Your task to perform on an android device: open wifi settings Image 0: 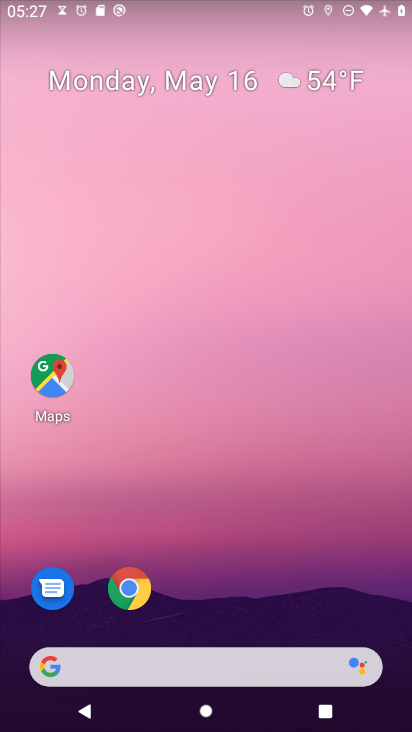
Step 0: drag from (282, 561) to (259, 92)
Your task to perform on an android device: open wifi settings Image 1: 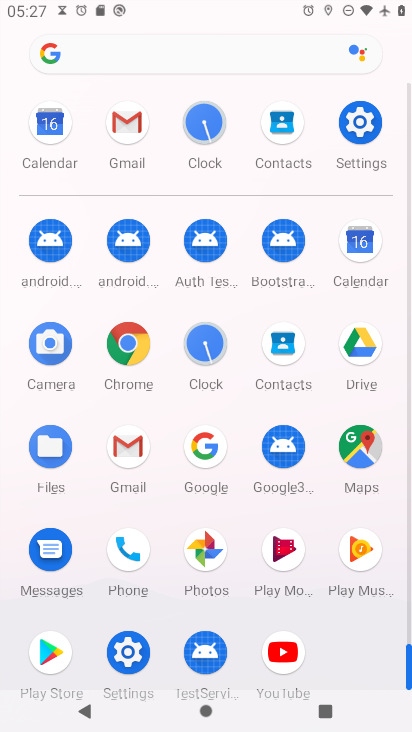
Step 1: drag from (10, 461) to (24, 177)
Your task to perform on an android device: open wifi settings Image 2: 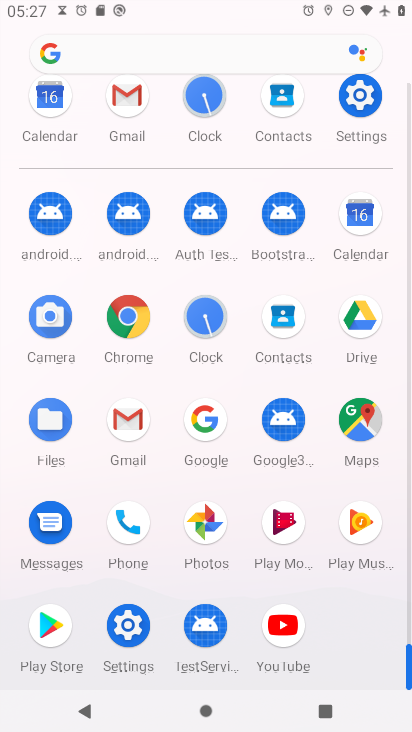
Step 2: click (360, 91)
Your task to perform on an android device: open wifi settings Image 3: 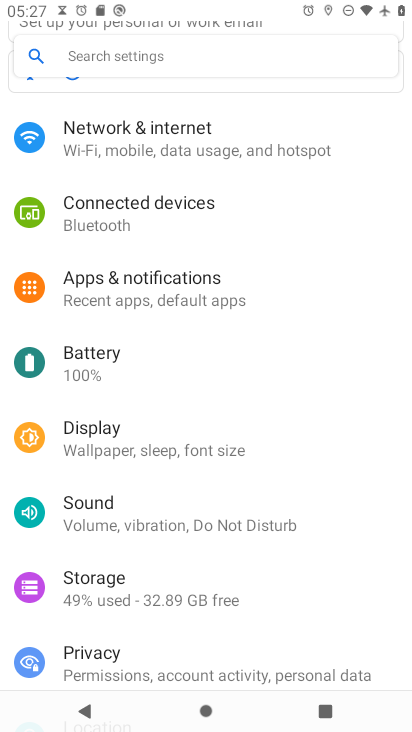
Step 3: click (203, 146)
Your task to perform on an android device: open wifi settings Image 4: 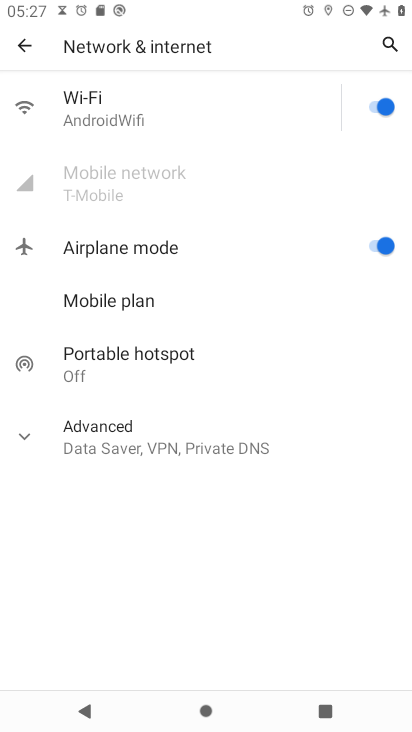
Step 4: click (144, 114)
Your task to perform on an android device: open wifi settings Image 5: 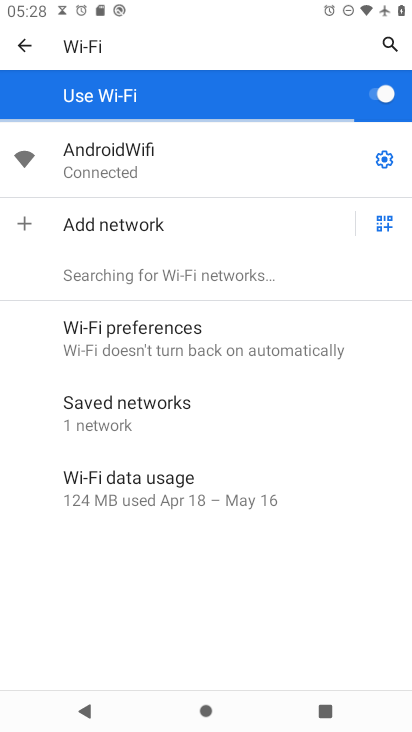
Step 5: task complete